Your task to perform on an android device: Go to notification settings Image 0: 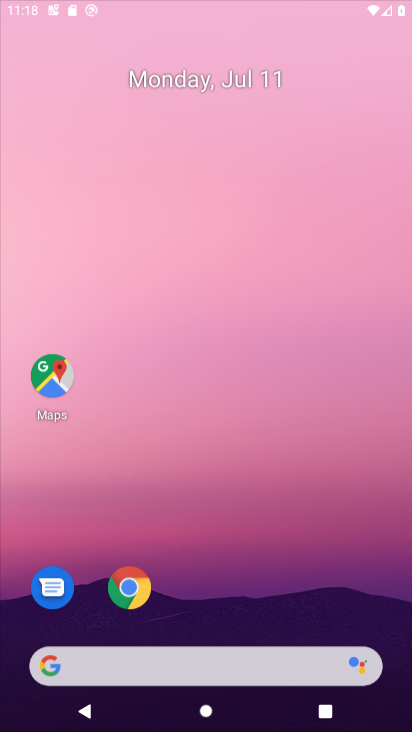
Step 0: drag from (283, 705) to (250, 211)
Your task to perform on an android device: Go to notification settings Image 1: 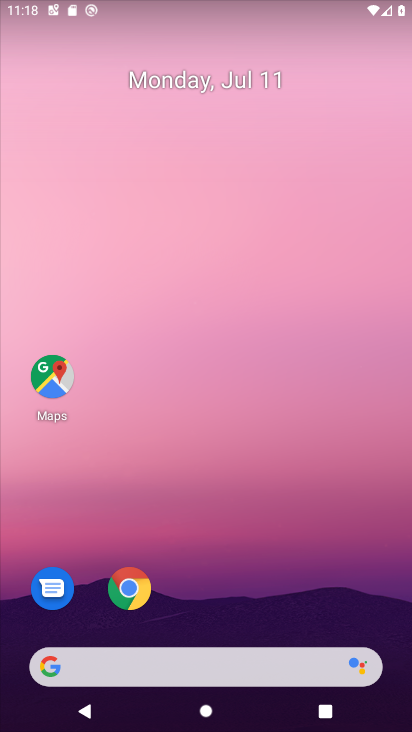
Step 1: drag from (184, 318) to (138, 106)
Your task to perform on an android device: Go to notification settings Image 2: 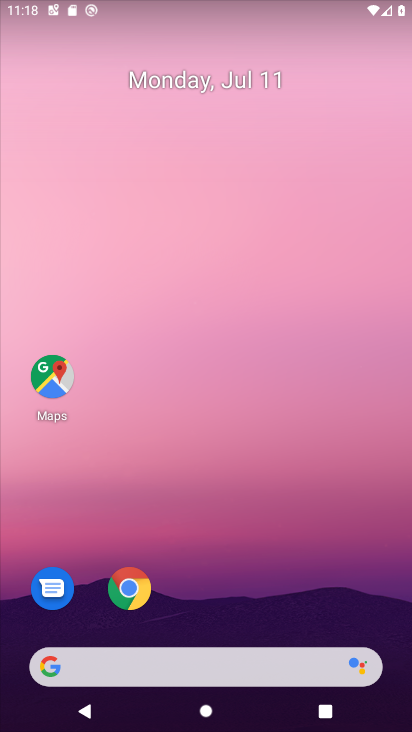
Step 2: drag from (234, 565) to (166, 8)
Your task to perform on an android device: Go to notification settings Image 3: 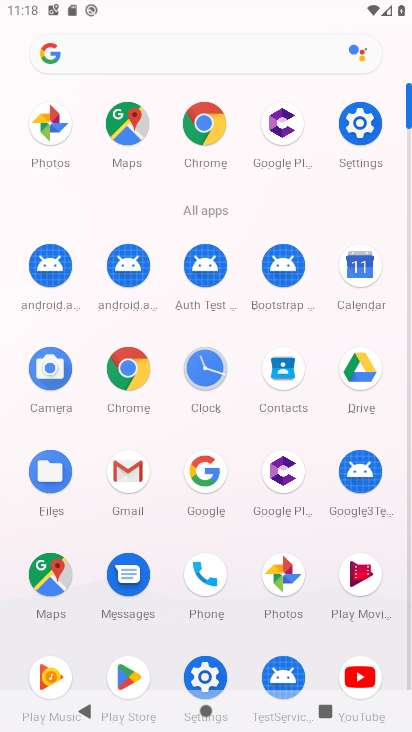
Step 3: drag from (289, 487) to (331, 76)
Your task to perform on an android device: Go to notification settings Image 4: 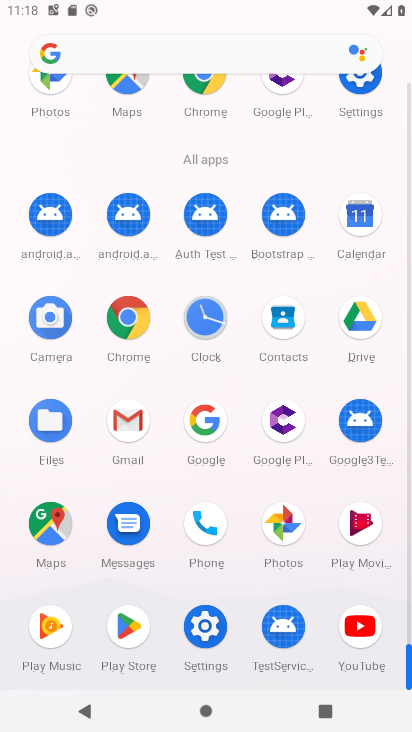
Step 4: click (364, 126)
Your task to perform on an android device: Go to notification settings Image 5: 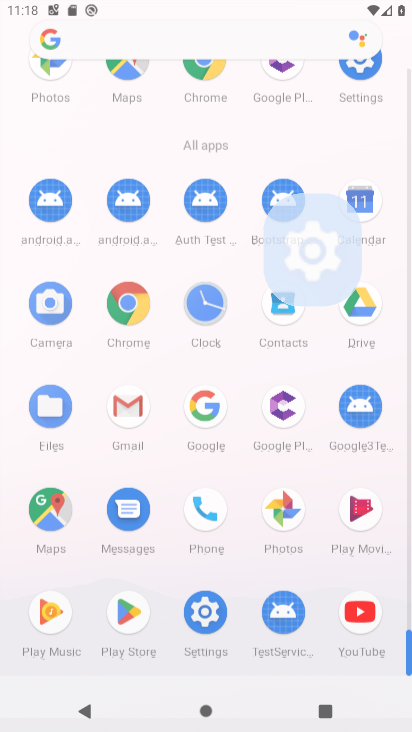
Step 5: click (369, 97)
Your task to perform on an android device: Go to notification settings Image 6: 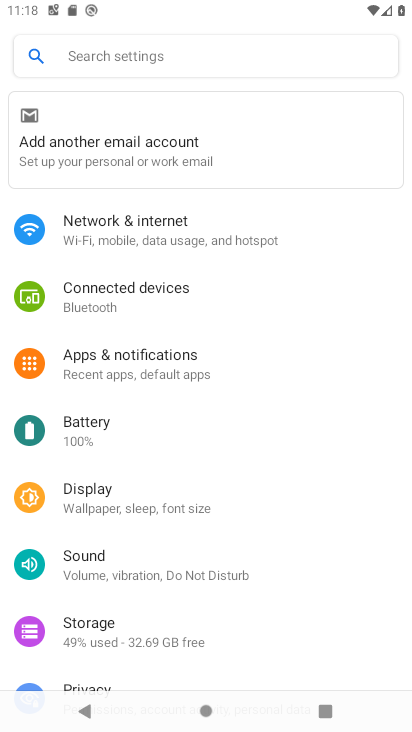
Step 6: click (132, 366)
Your task to perform on an android device: Go to notification settings Image 7: 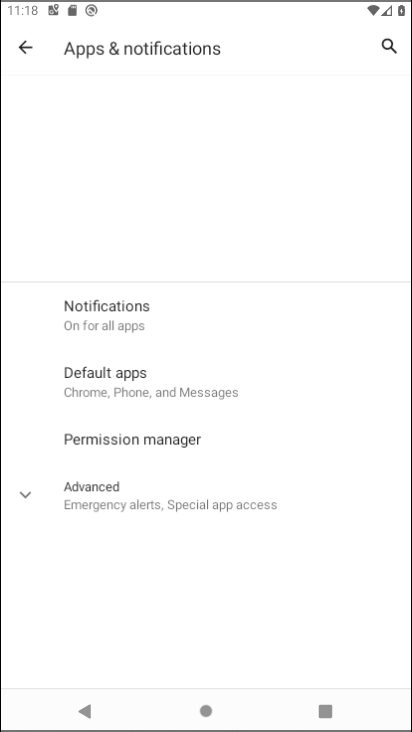
Step 7: click (134, 375)
Your task to perform on an android device: Go to notification settings Image 8: 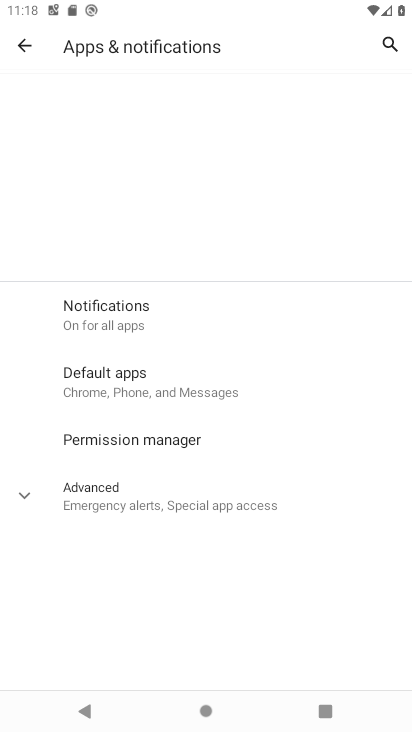
Step 8: click (135, 374)
Your task to perform on an android device: Go to notification settings Image 9: 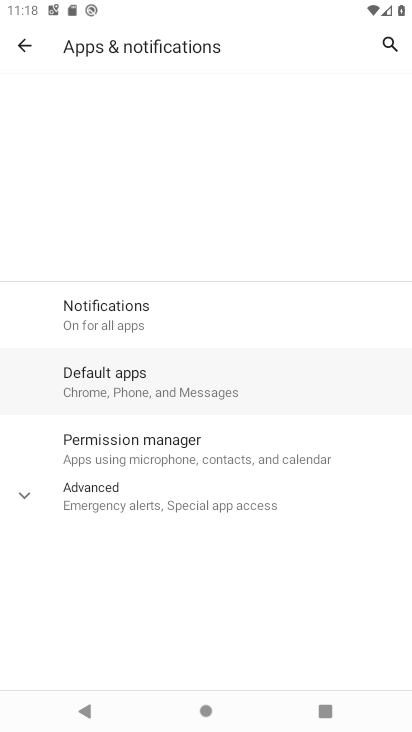
Step 9: click (137, 370)
Your task to perform on an android device: Go to notification settings Image 10: 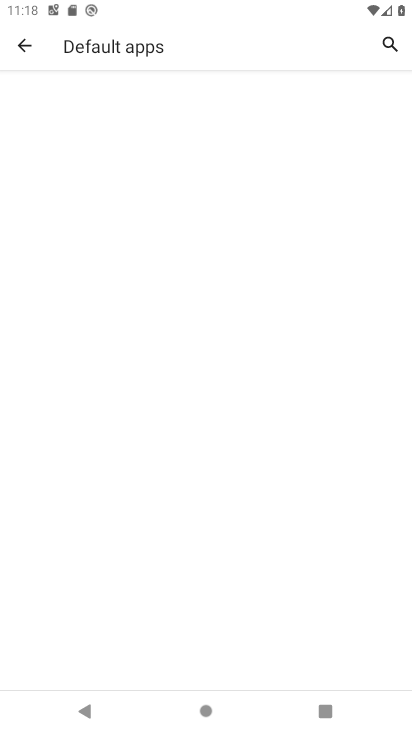
Step 10: task complete